Your task to perform on an android device: Empty the shopping cart on walmart. Image 0: 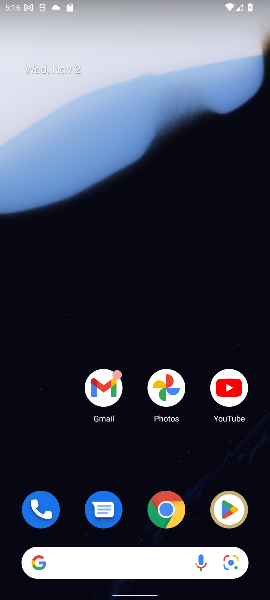
Step 0: click (148, 556)
Your task to perform on an android device: Empty the shopping cart on walmart. Image 1: 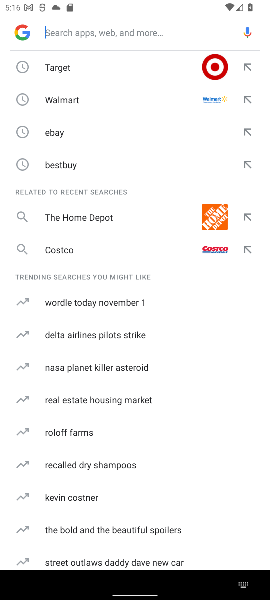
Step 1: click (71, 94)
Your task to perform on an android device: Empty the shopping cart on walmart. Image 2: 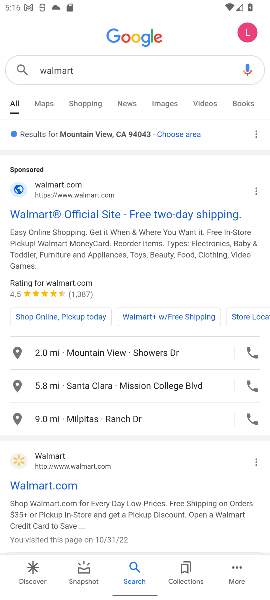
Step 2: click (58, 484)
Your task to perform on an android device: Empty the shopping cart on walmart. Image 3: 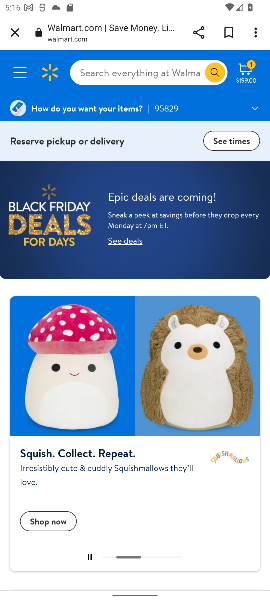
Step 3: click (248, 68)
Your task to perform on an android device: Empty the shopping cart on walmart. Image 4: 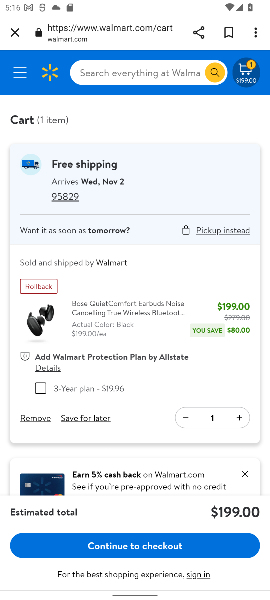
Step 4: click (40, 414)
Your task to perform on an android device: Empty the shopping cart on walmart. Image 5: 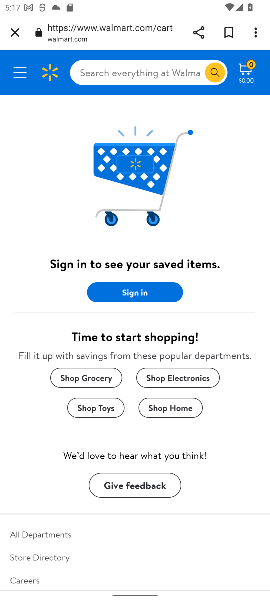
Step 5: click (228, 491)
Your task to perform on an android device: Empty the shopping cart on walmart. Image 6: 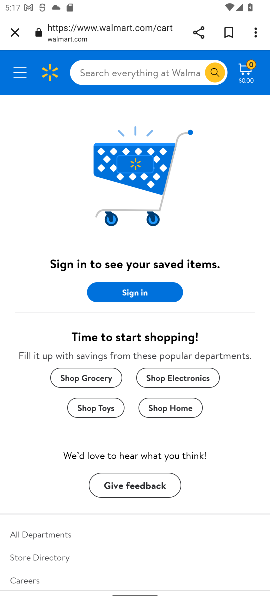
Step 6: click (253, 66)
Your task to perform on an android device: Empty the shopping cart on walmart. Image 7: 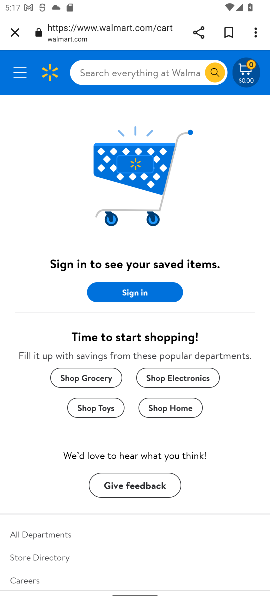
Step 7: task complete